Your task to perform on an android device: See recent photos Image 0: 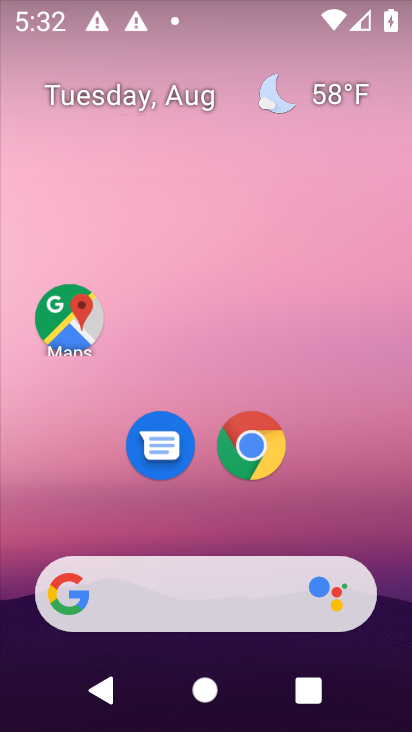
Step 0: drag from (172, 537) to (205, 221)
Your task to perform on an android device: See recent photos Image 1: 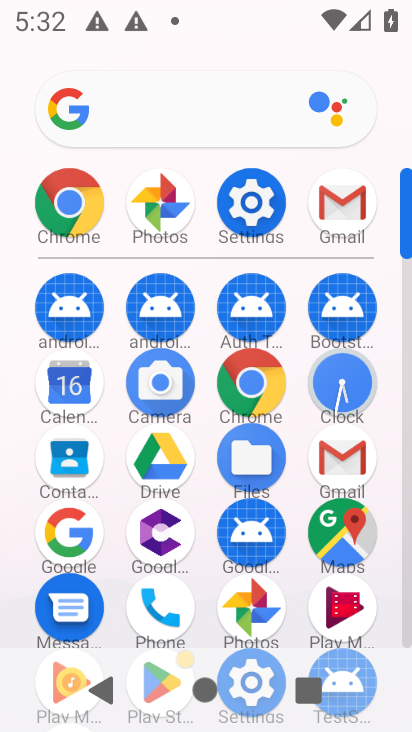
Step 1: click (245, 591)
Your task to perform on an android device: See recent photos Image 2: 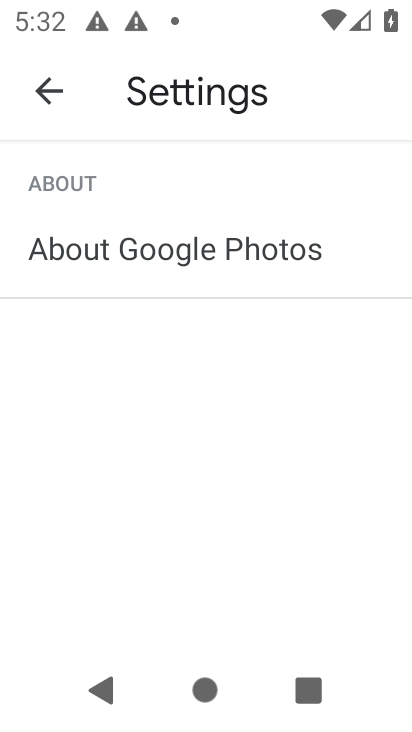
Step 2: click (47, 91)
Your task to perform on an android device: See recent photos Image 3: 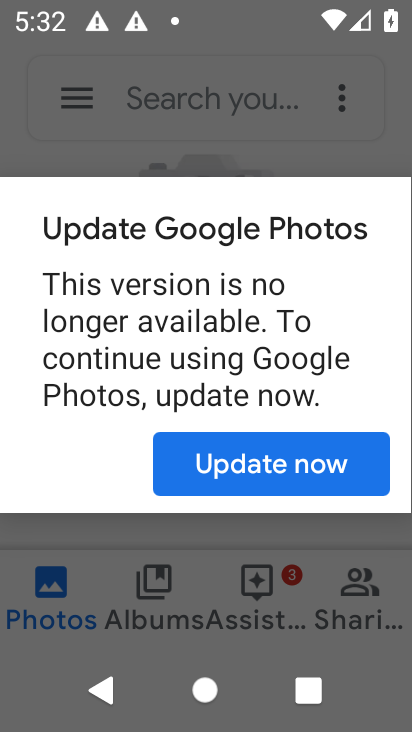
Step 3: click (263, 459)
Your task to perform on an android device: See recent photos Image 4: 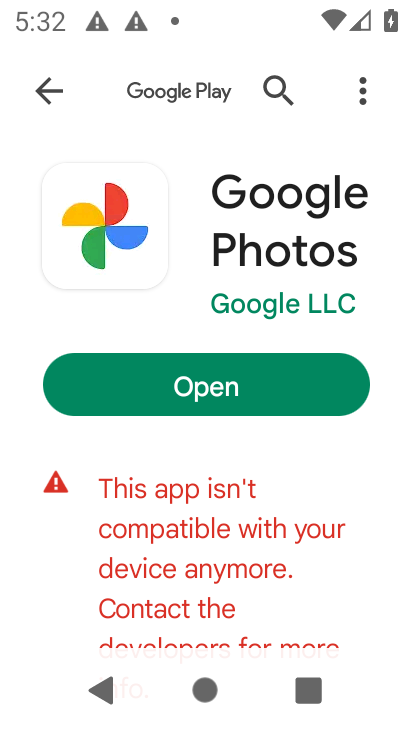
Step 4: task complete